Your task to perform on an android device: What is the recent news? Image 0: 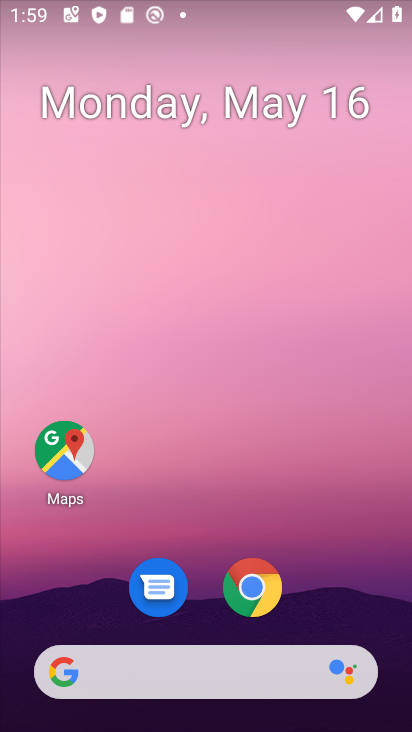
Step 0: click (311, 283)
Your task to perform on an android device: What is the recent news? Image 1: 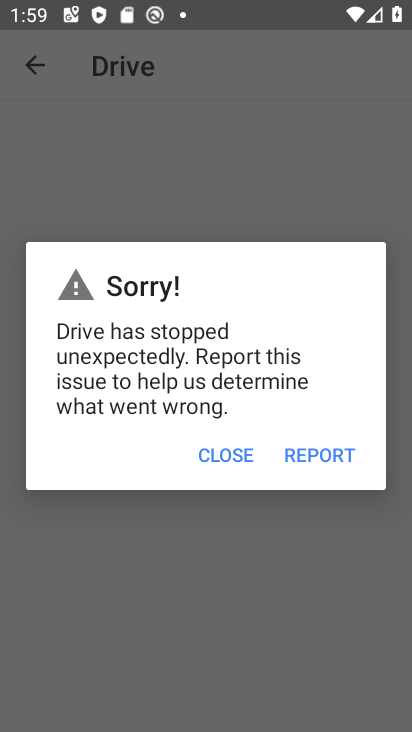
Step 1: drag from (289, 603) to (196, 161)
Your task to perform on an android device: What is the recent news? Image 2: 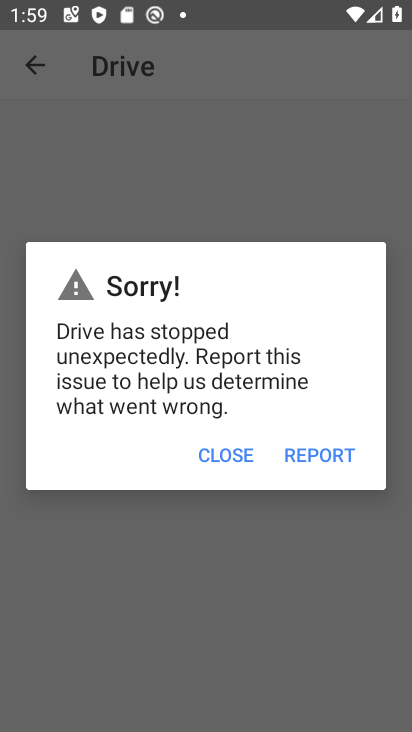
Step 2: press back button
Your task to perform on an android device: What is the recent news? Image 3: 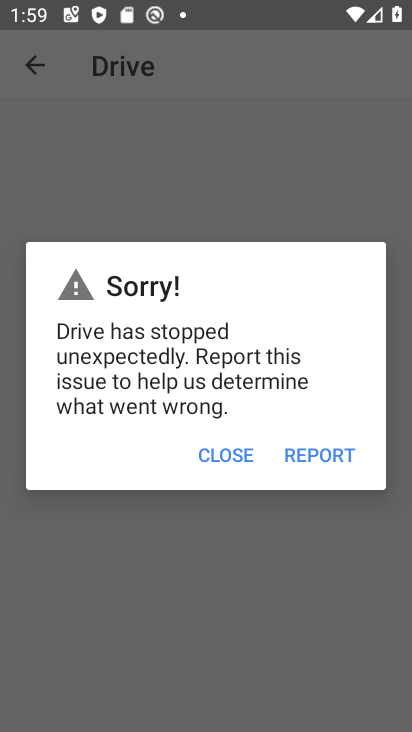
Step 3: press back button
Your task to perform on an android device: What is the recent news? Image 4: 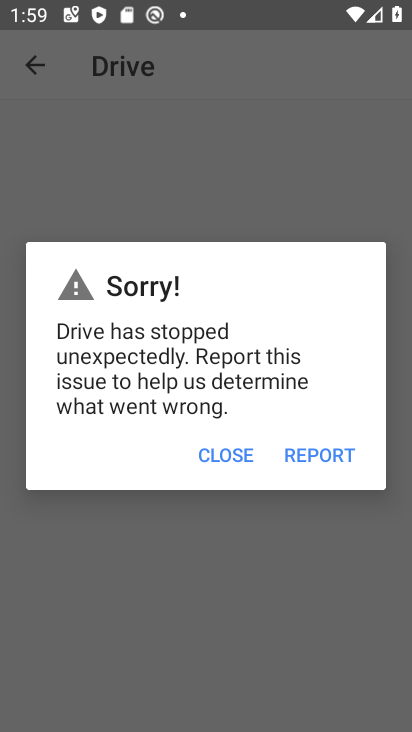
Step 4: click (239, 453)
Your task to perform on an android device: What is the recent news? Image 5: 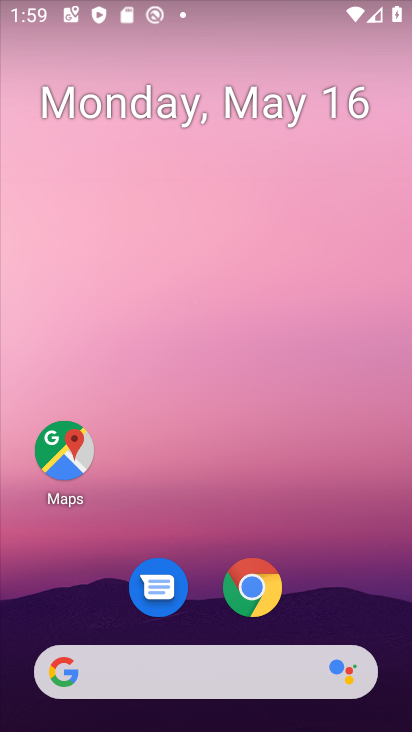
Step 5: drag from (323, 567) to (116, 145)
Your task to perform on an android device: What is the recent news? Image 6: 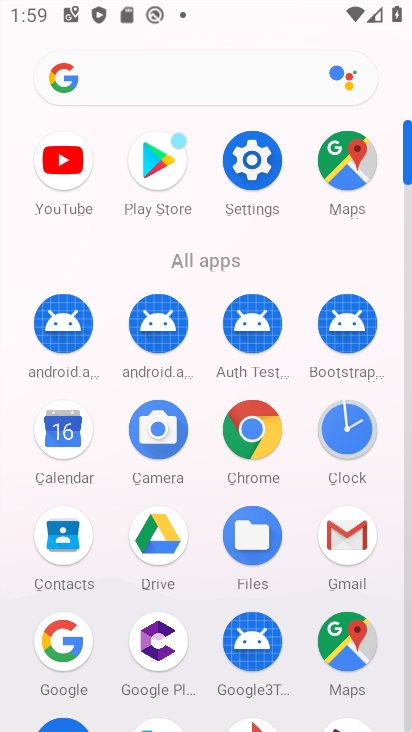
Step 6: press home button
Your task to perform on an android device: What is the recent news? Image 7: 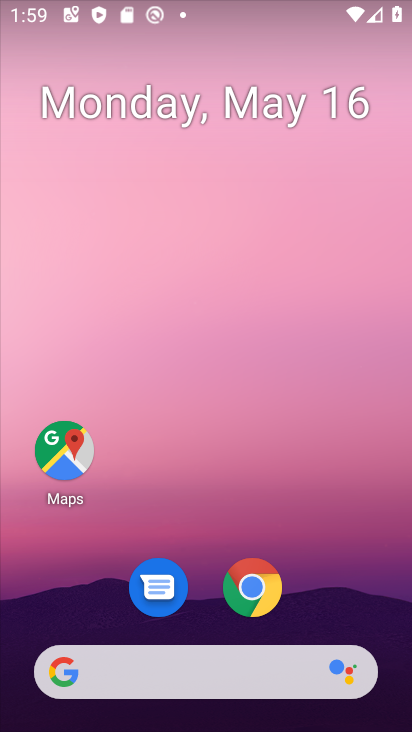
Step 7: drag from (46, 194) to (395, 317)
Your task to perform on an android device: What is the recent news? Image 8: 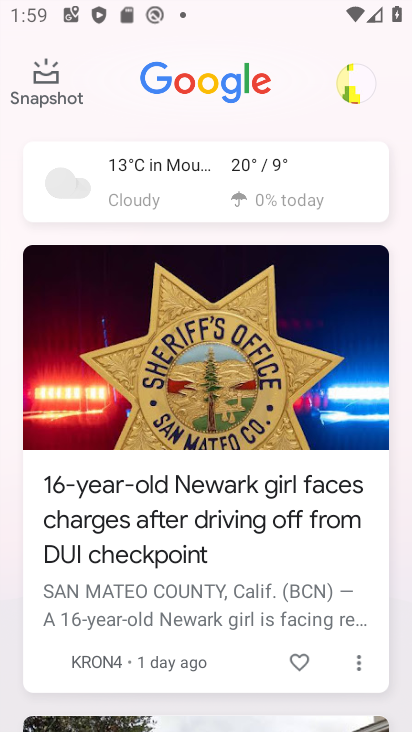
Step 8: click (193, 179)
Your task to perform on an android device: What is the recent news? Image 9: 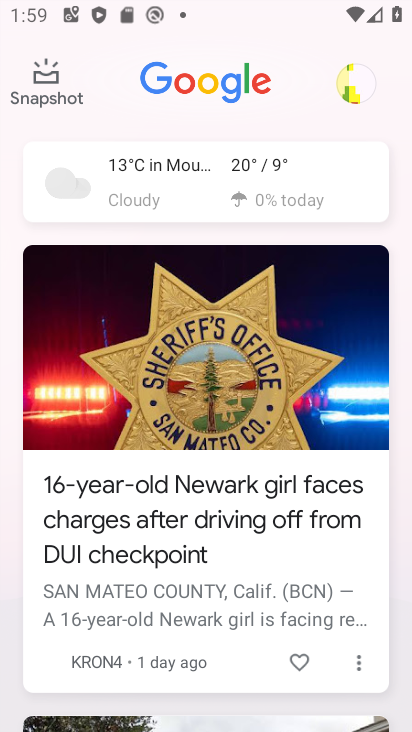
Step 9: click (193, 166)
Your task to perform on an android device: What is the recent news? Image 10: 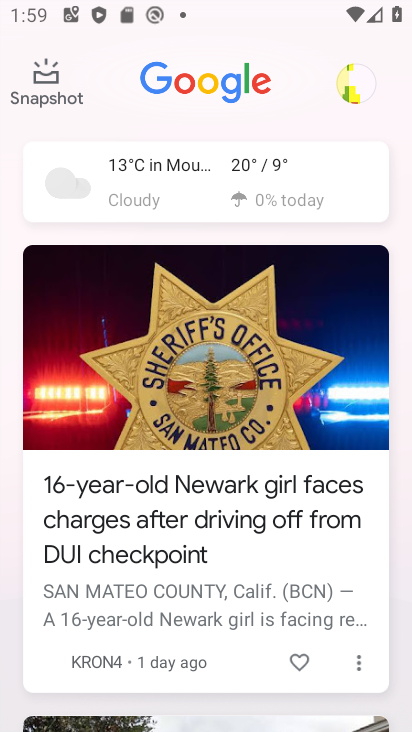
Step 10: click (194, 165)
Your task to perform on an android device: What is the recent news? Image 11: 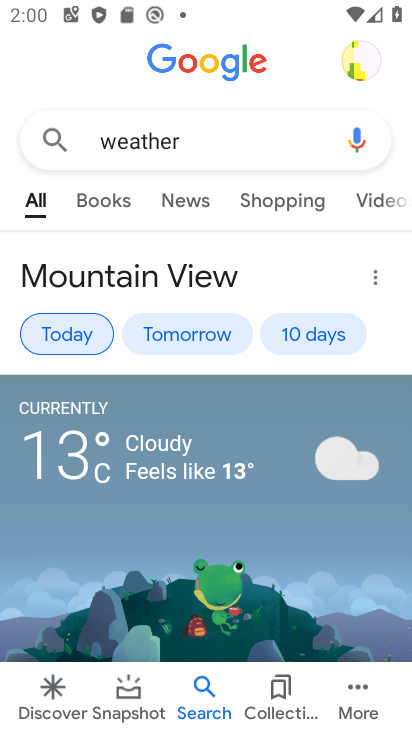
Step 11: task complete